Your task to perform on an android device: open chrome privacy settings Image 0: 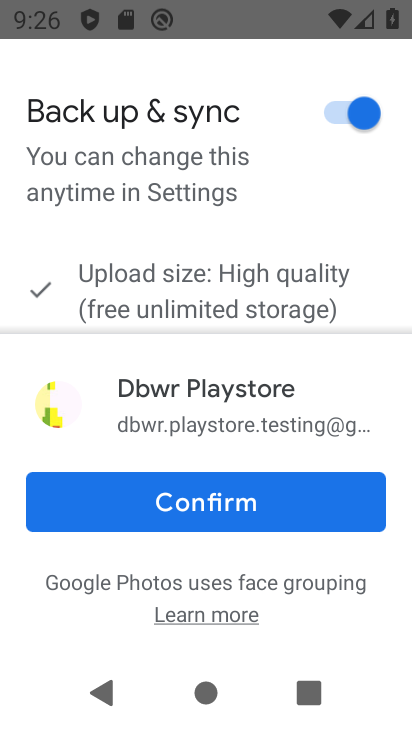
Step 0: press home button
Your task to perform on an android device: open chrome privacy settings Image 1: 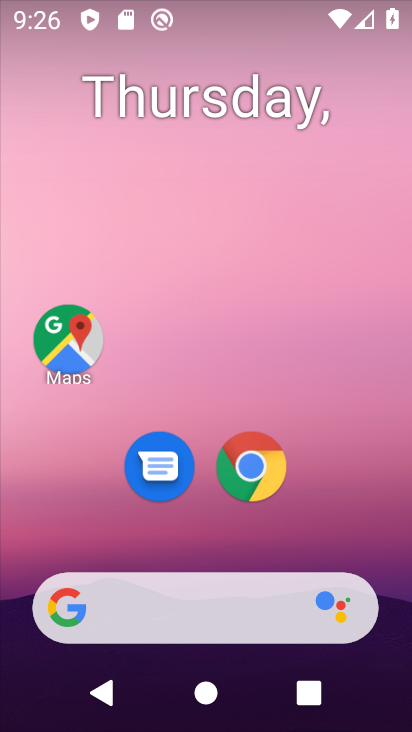
Step 1: drag from (360, 511) to (353, 141)
Your task to perform on an android device: open chrome privacy settings Image 2: 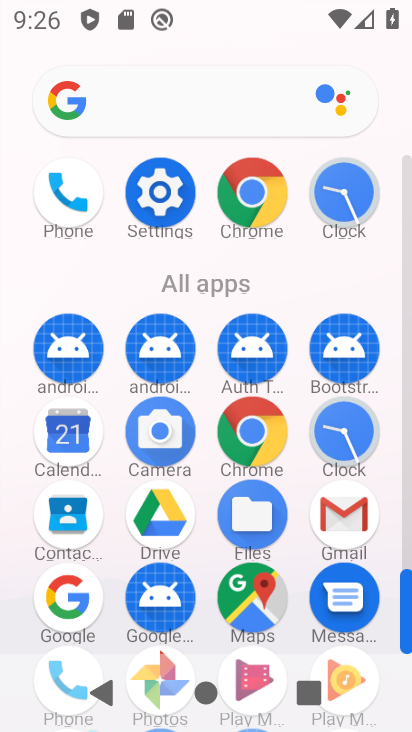
Step 2: click (263, 422)
Your task to perform on an android device: open chrome privacy settings Image 3: 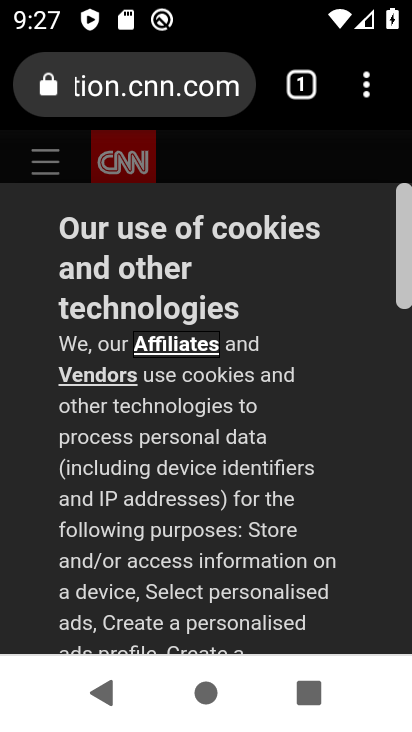
Step 3: click (375, 101)
Your task to perform on an android device: open chrome privacy settings Image 4: 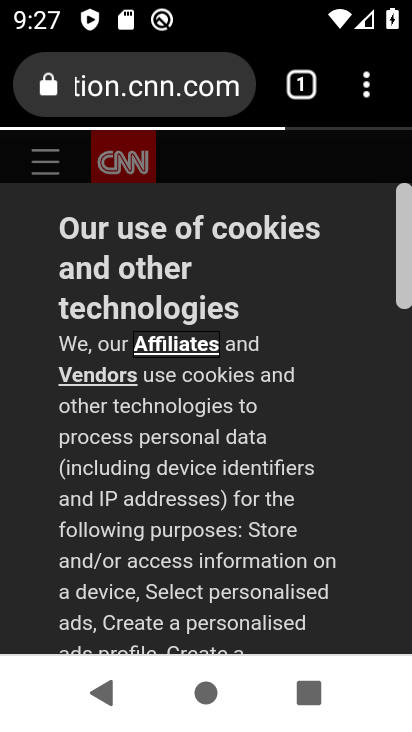
Step 4: drag from (375, 101) to (202, 516)
Your task to perform on an android device: open chrome privacy settings Image 5: 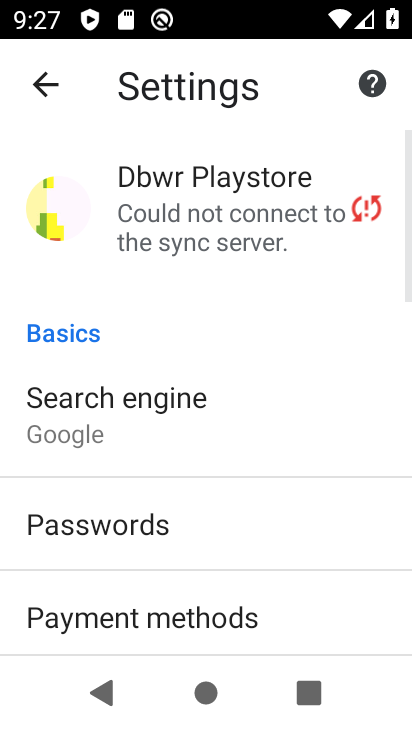
Step 5: drag from (362, 620) to (369, 350)
Your task to perform on an android device: open chrome privacy settings Image 6: 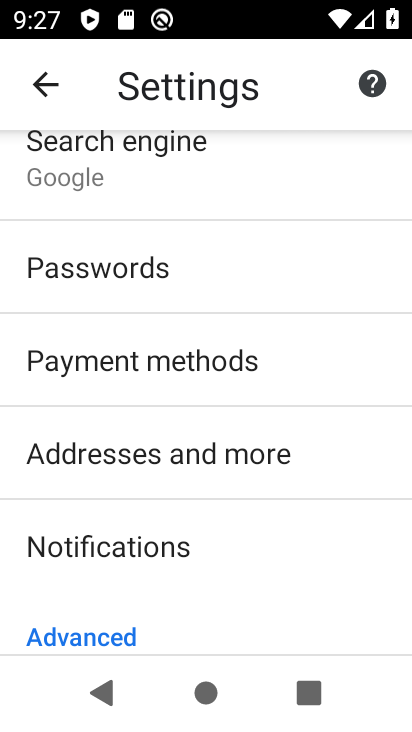
Step 6: drag from (321, 536) to (325, 273)
Your task to perform on an android device: open chrome privacy settings Image 7: 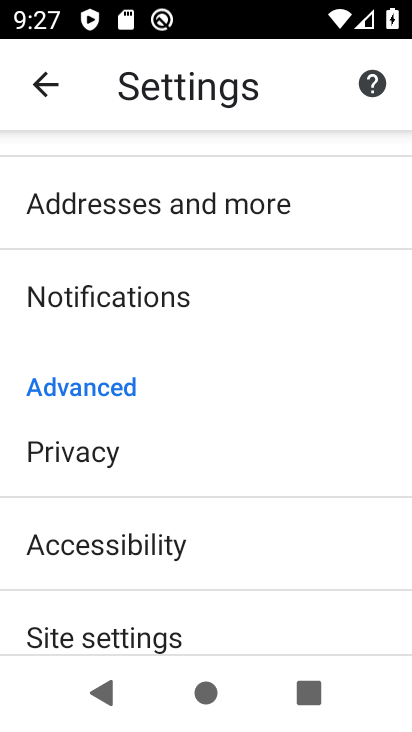
Step 7: drag from (304, 596) to (279, 373)
Your task to perform on an android device: open chrome privacy settings Image 8: 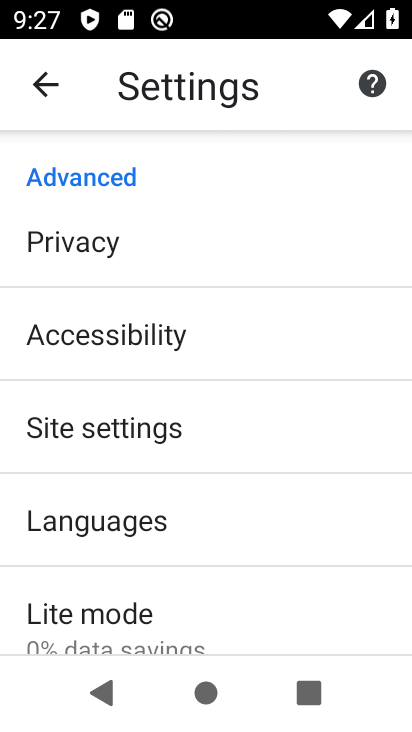
Step 8: drag from (281, 600) to (281, 384)
Your task to perform on an android device: open chrome privacy settings Image 9: 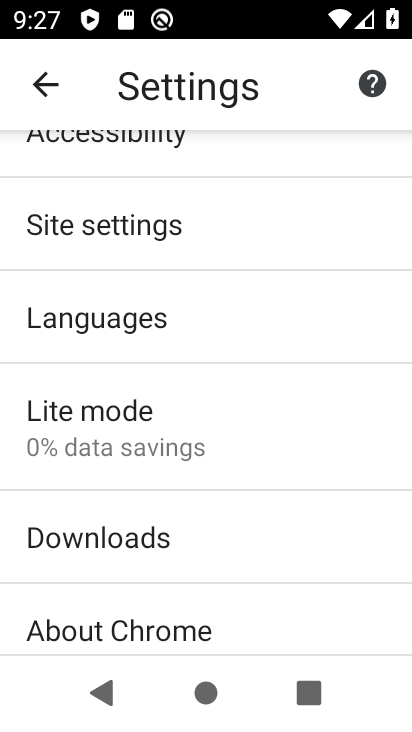
Step 9: drag from (278, 263) to (255, 583)
Your task to perform on an android device: open chrome privacy settings Image 10: 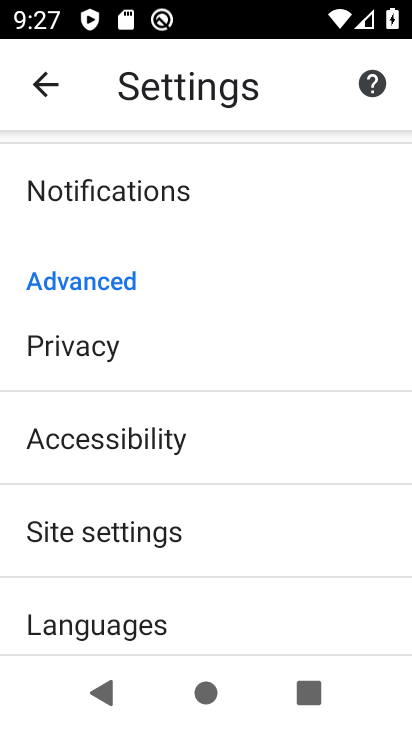
Step 10: click (171, 358)
Your task to perform on an android device: open chrome privacy settings Image 11: 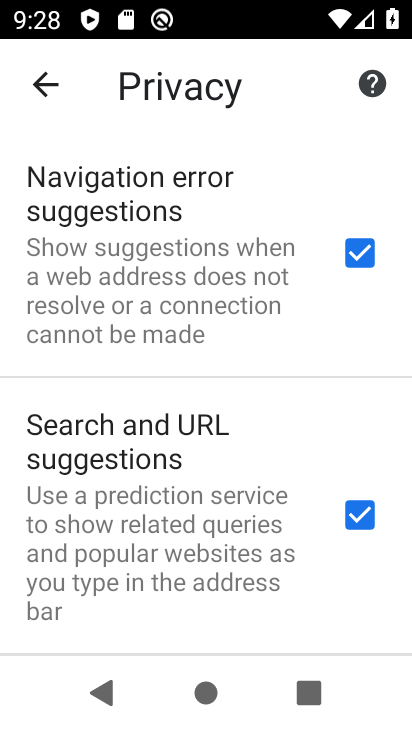
Step 11: task complete